Your task to perform on an android device: turn off location Image 0: 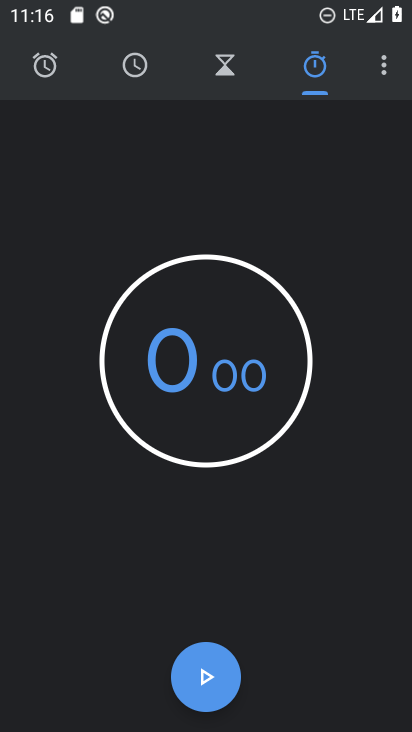
Step 0: press home button
Your task to perform on an android device: turn off location Image 1: 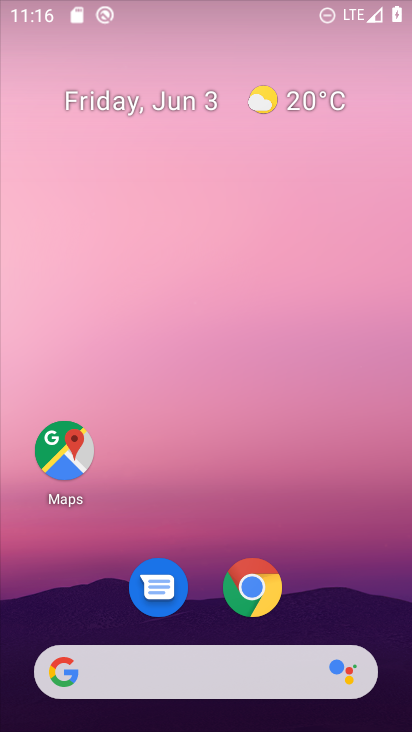
Step 1: drag from (332, 568) to (215, 17)
Your task to perform on an android device: turn off location Image 2: 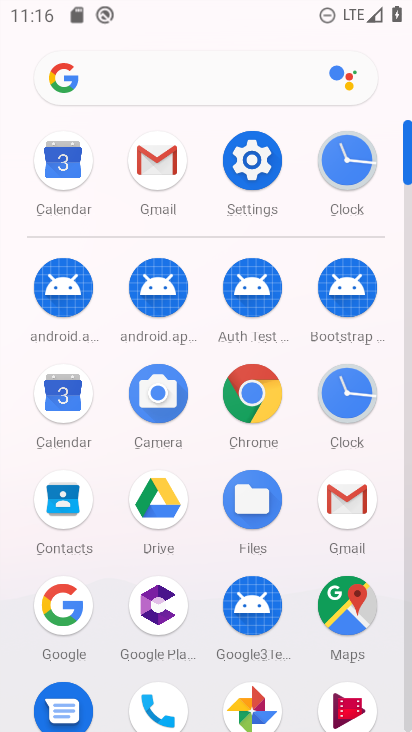
Step 2: click (251, 163)
Your task to perform on an android device: turn off location Image 3: 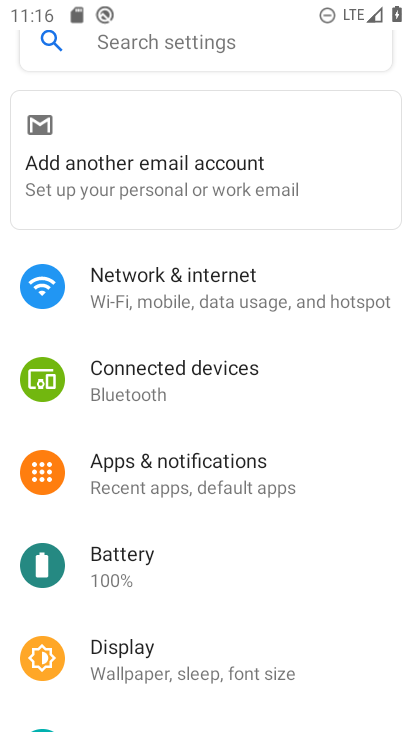
Step 3: drag from (231, 563) to (224, 18)
Your task to perform on an android device: turn off location Image 4: 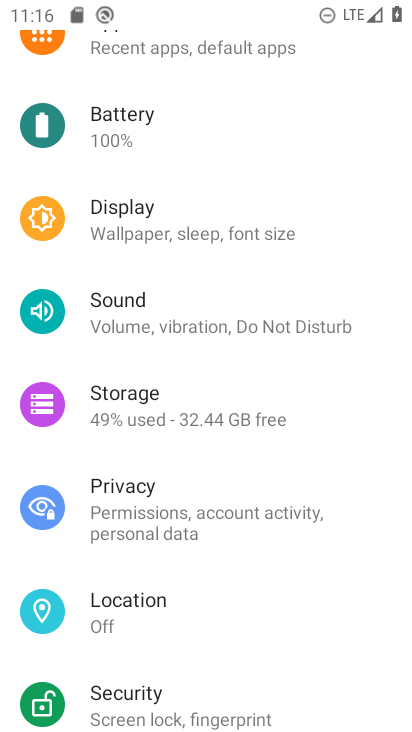
Step 4: click (181, 627)
Your task to perform on an android device: turn off location Image 5: 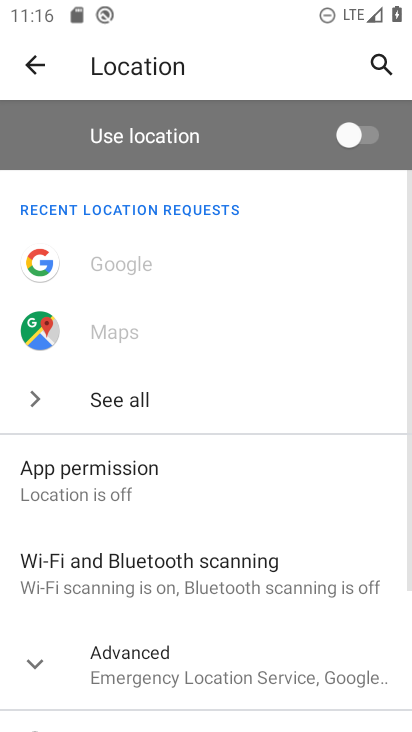
Step 5: task complete